Your task to perform on an android device: Open calendar and show me the third week of next month Image 0: 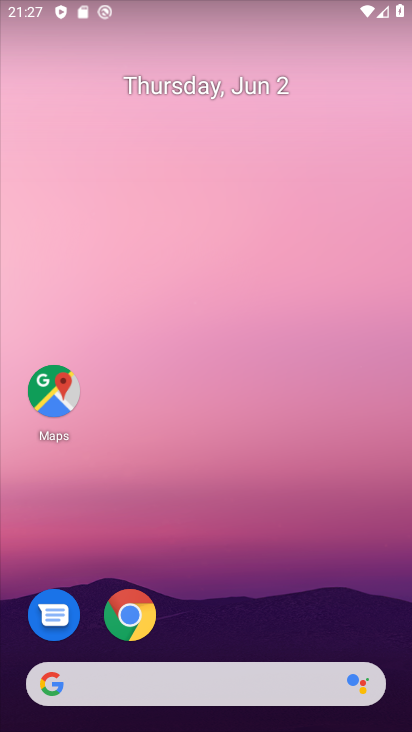
Step 0: drag from (214, 604) to (282, 197)
Your task to perform on an android device: Open calendar and show me the third week of next month Image 1: 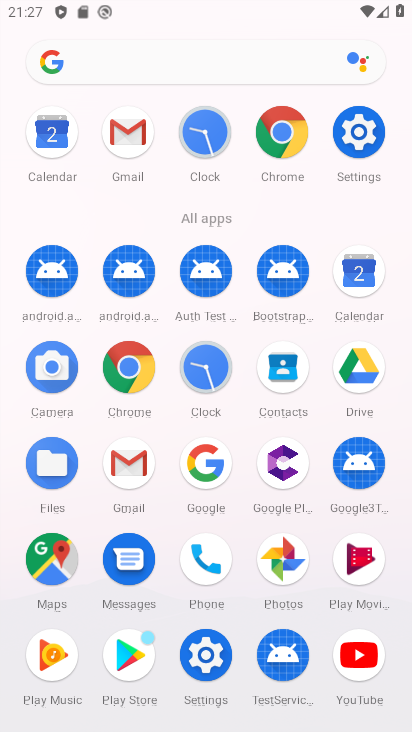
Step 1: click (356, 277)
Your task to perform on an android device: Open calendar and show me the third week of next month Image 2: 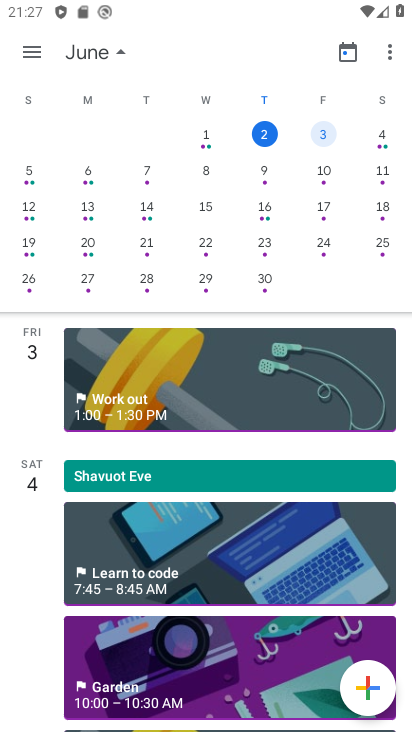
Step 2: drag from (403, 206) to (21, 168)
Your task to perform on an android device: Open calendar and show me the third week of next month Image 3: 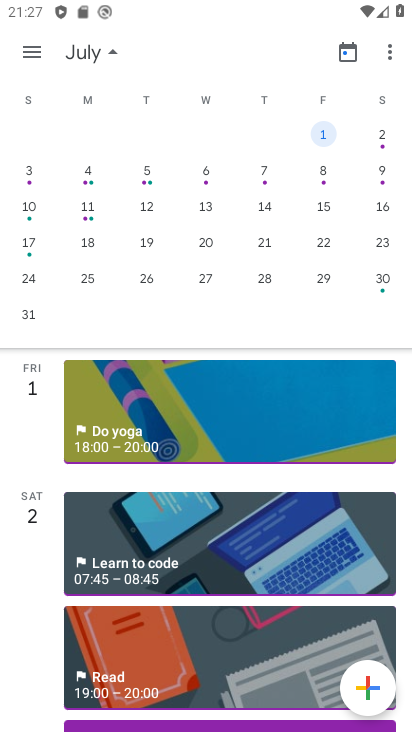
Step 3: click (28, 207)
Your task to perform on an android device: Open calendar and show me the third week of next month Image 4: 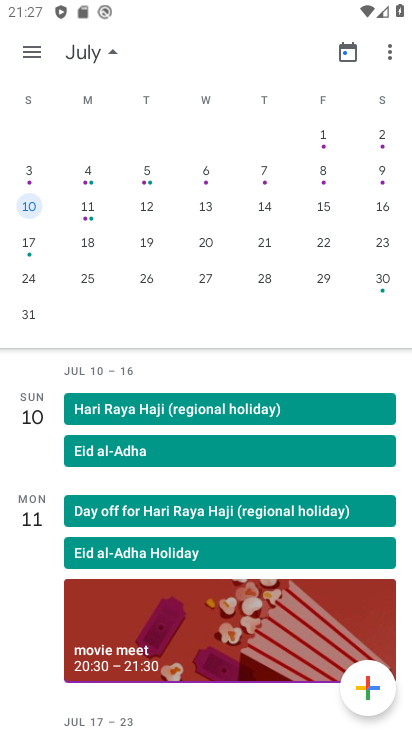
Step 4: click (91, 214)
Your task to perform on an android device: Open calendar and show me the third week of next month Image 5: 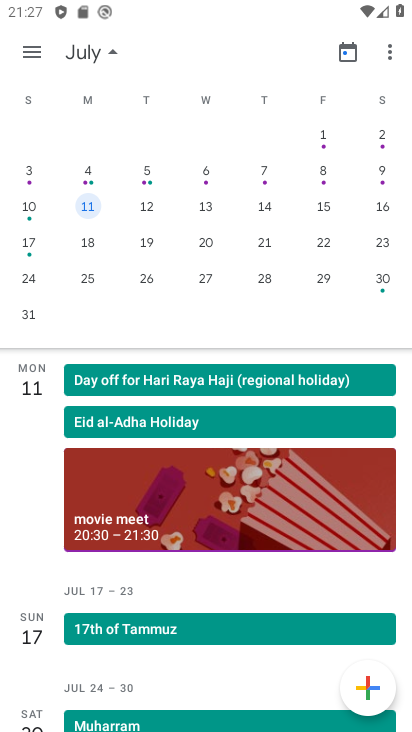
Step 5: click (153, 213)
Your task to perform on an android device: Open calendar and show me the third week of next month Image 6: 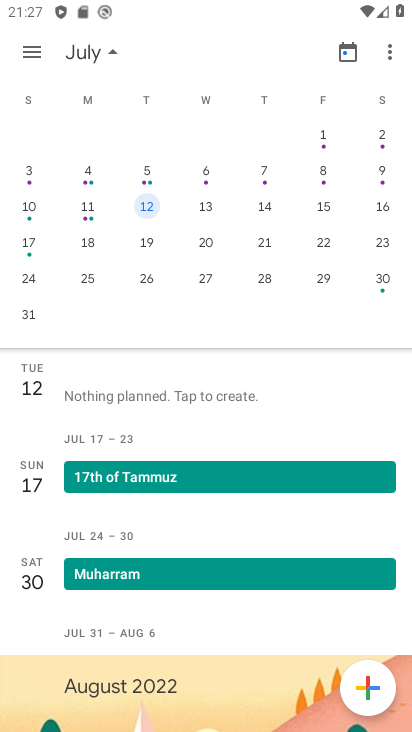
Step 6: click (212, 208)
Your task to perform on an android device: Open calendar and show me the third week of next month Image 7: 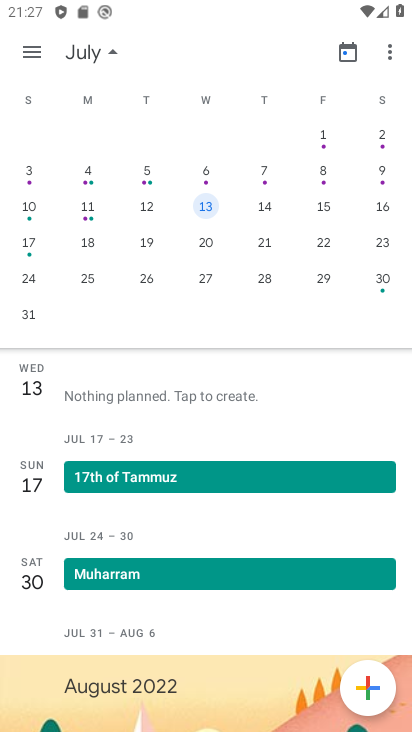
Step 7: click (271, 208)
Your task to perform on an android device: Open calendar and show me the third week of next month Image 8: 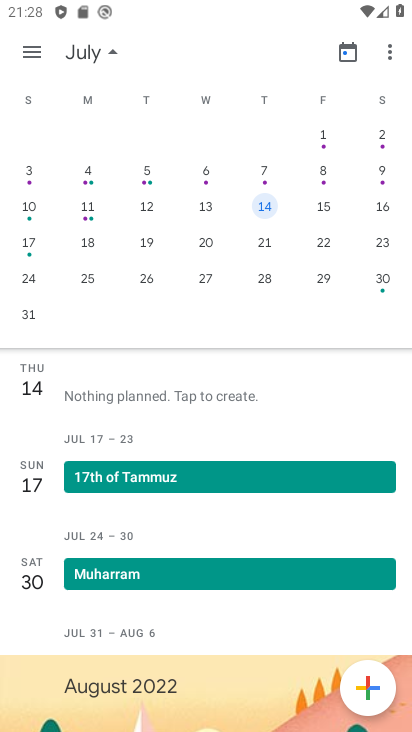
Step 8: click (318, 209)
Your task to perform on an android device: Open calendar and show me the third week of next month Image 9: 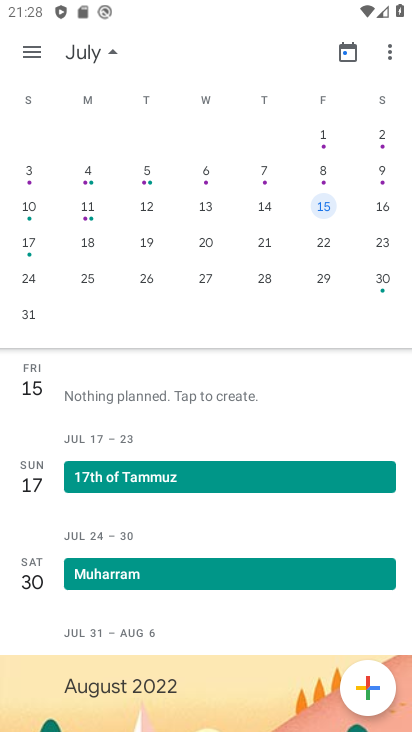
Step 9: click (376, 202)
Your task to perform on an android device: Open calendar and show me the third week of next month Image 10: 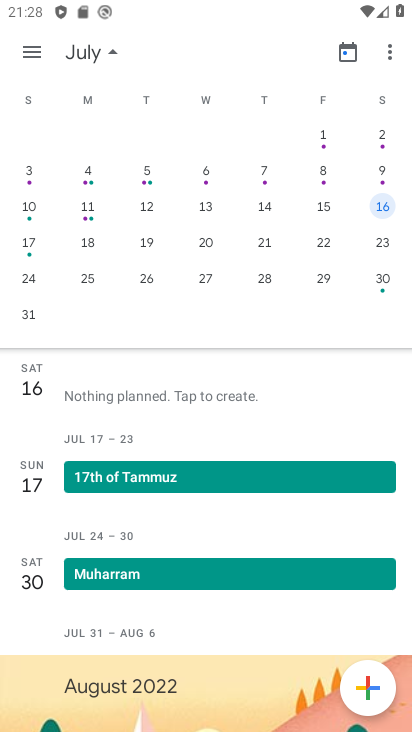
Step 10: task complete